Your task to perform on an android device: Go to Amazon Image 0: 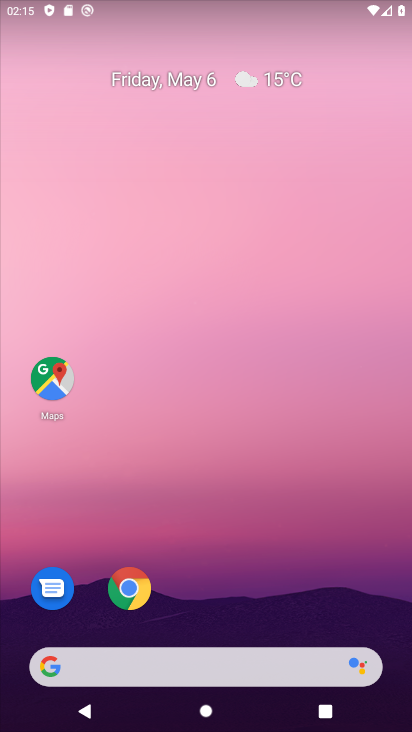
Step 0: click (135, 575)
Your task to perform on an android device: Go to Amazon Image 1: 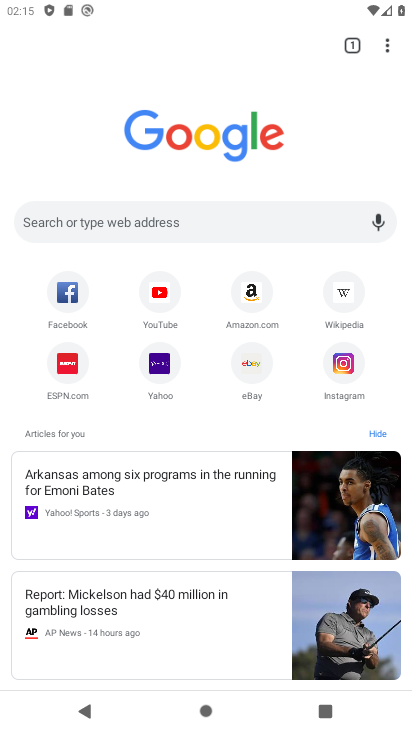
Step 1: click (250, 293)
Your task to perform on an android device: Go to Amazon Image 2: 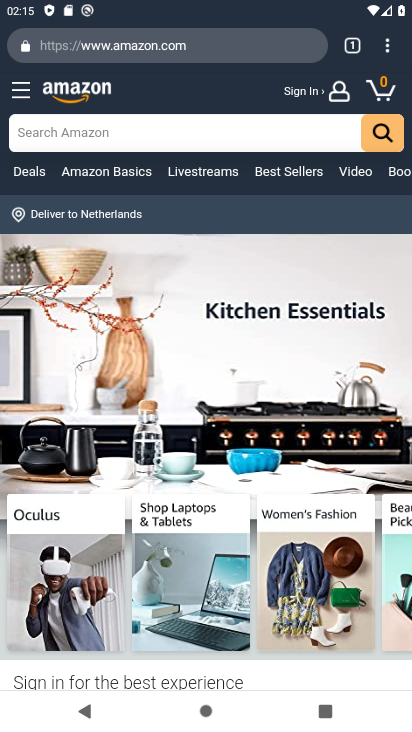
Step 2: task complete